Your task to perform on an android device: install app "YouTube Kids" Image 0: 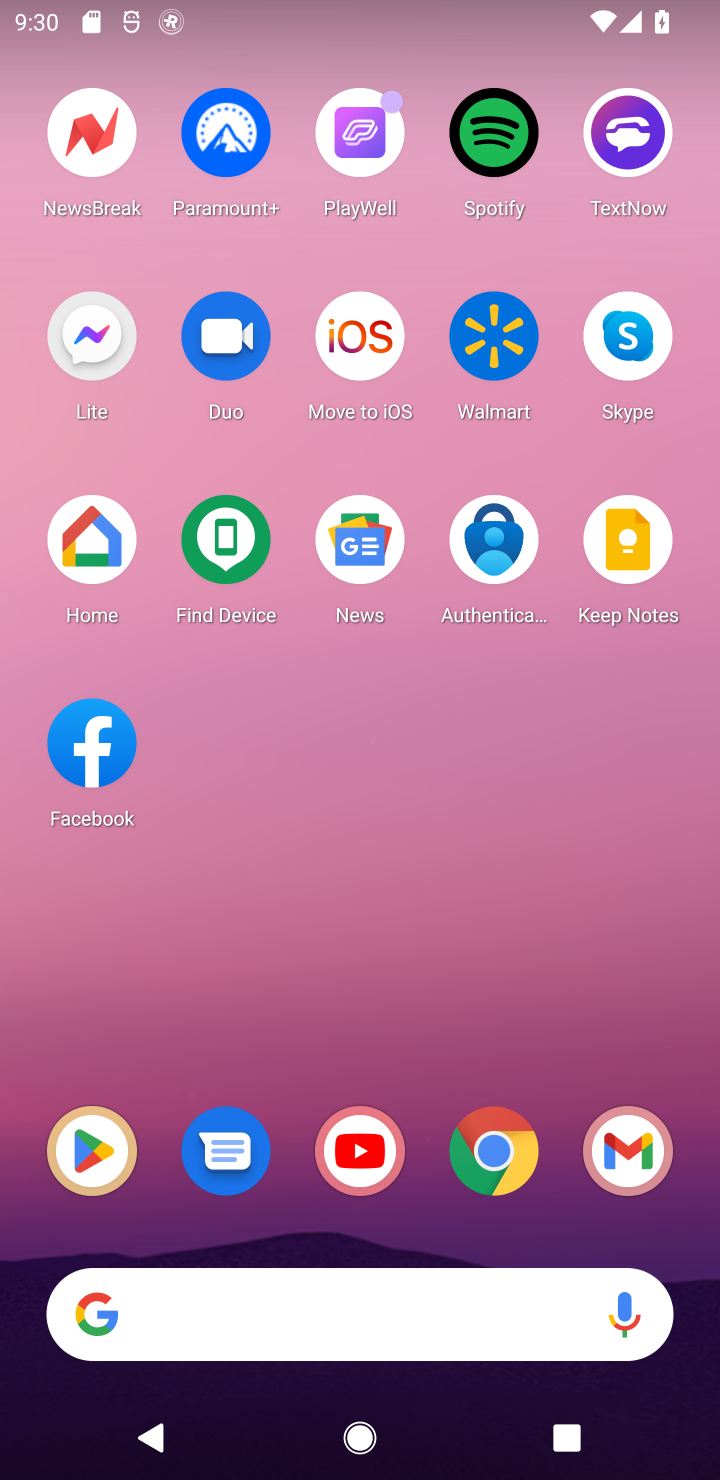
Step 0: click (99, 1162)
Your task to perform on an android device: install app "YouTube Kids" Image 1: 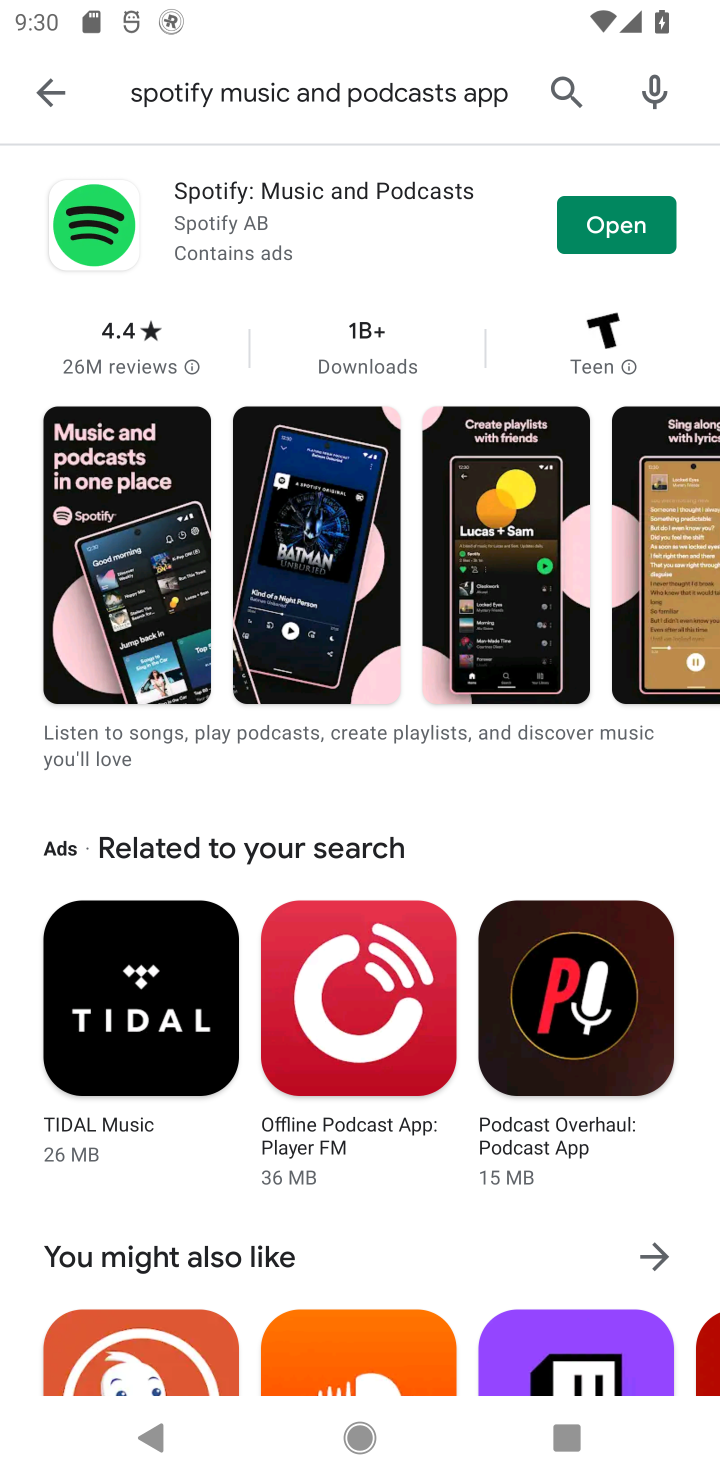
Step 1: click (559, 110)
Your task to perform on an android device: install app "YouTube Kids" Image 2: 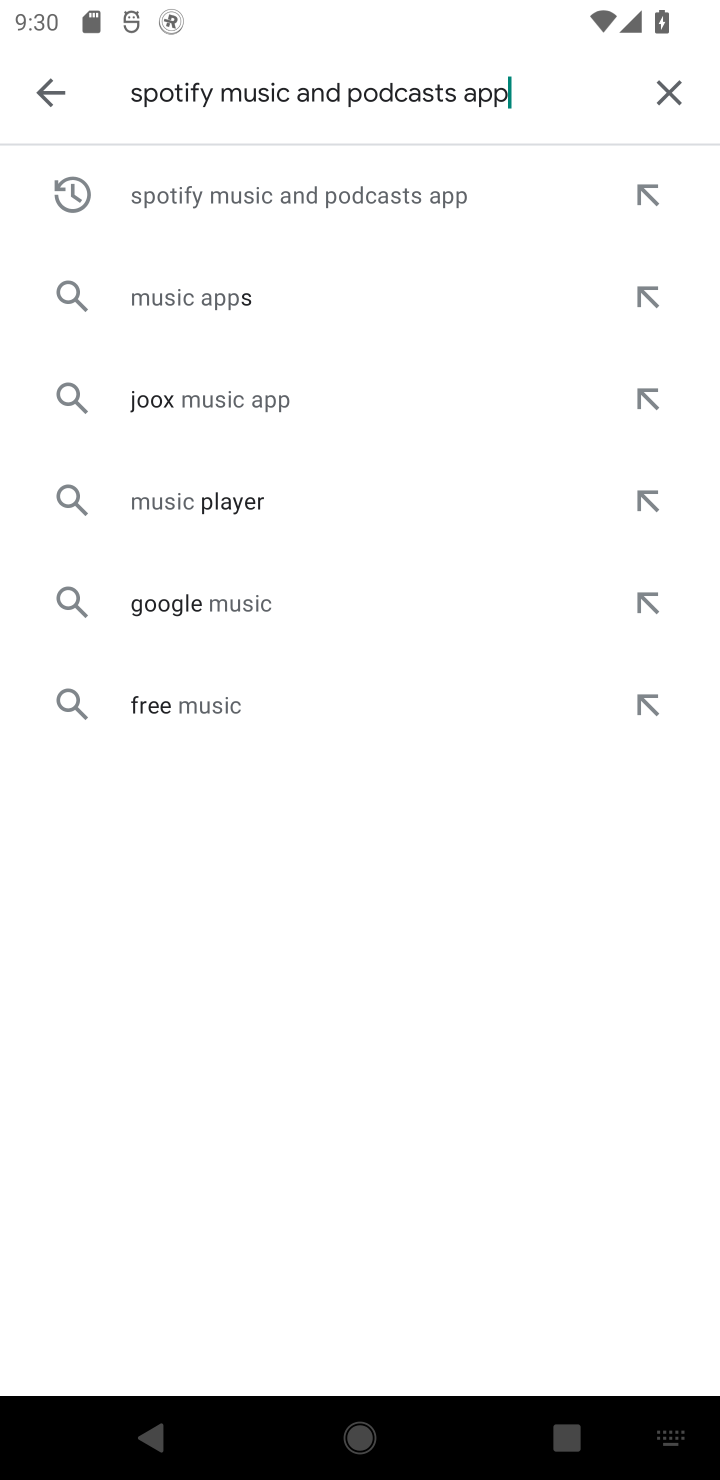
Step 2: click (650, 69)
Your task to perform on an android device: install app "YouTube Kids" Image 3: 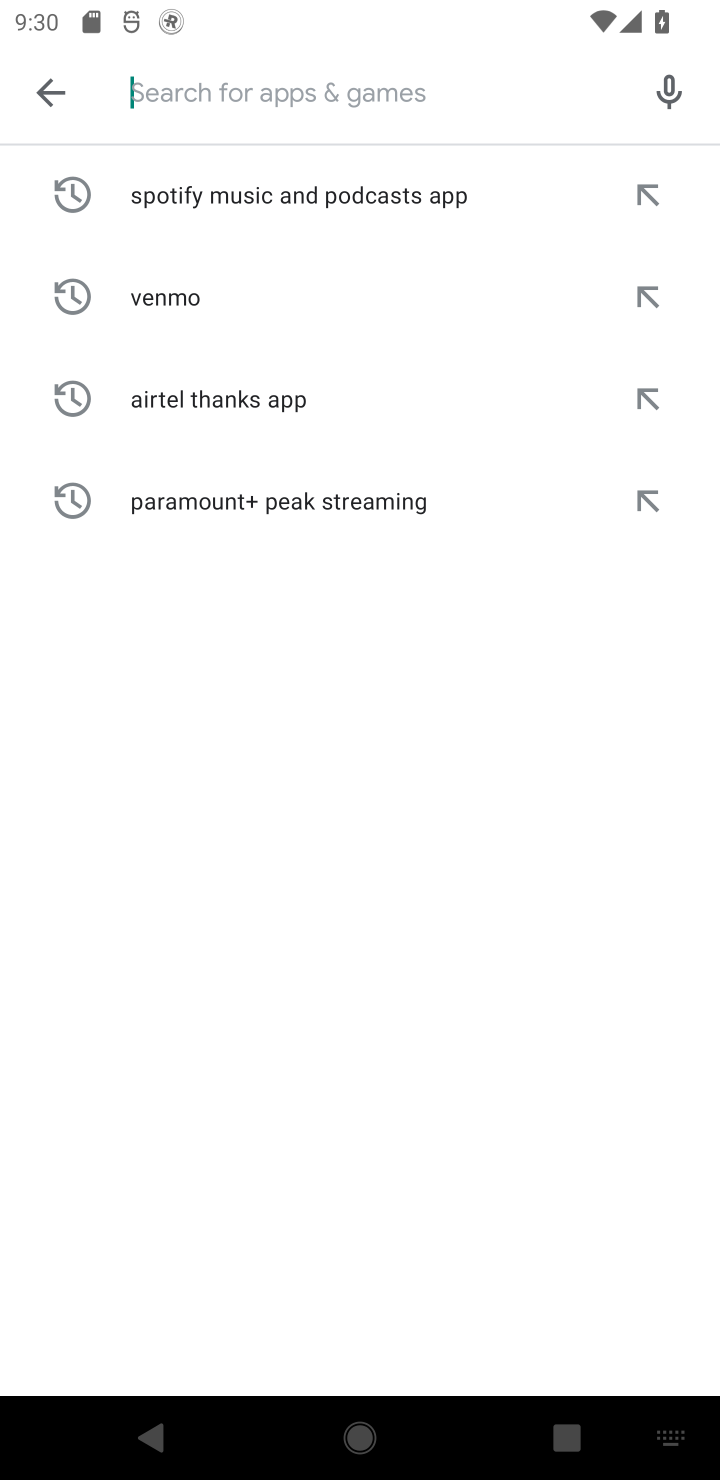
Step 3: type "YouTube Kids"
Your task to perform on an android device: install app "YouTube Kids" Image 4: 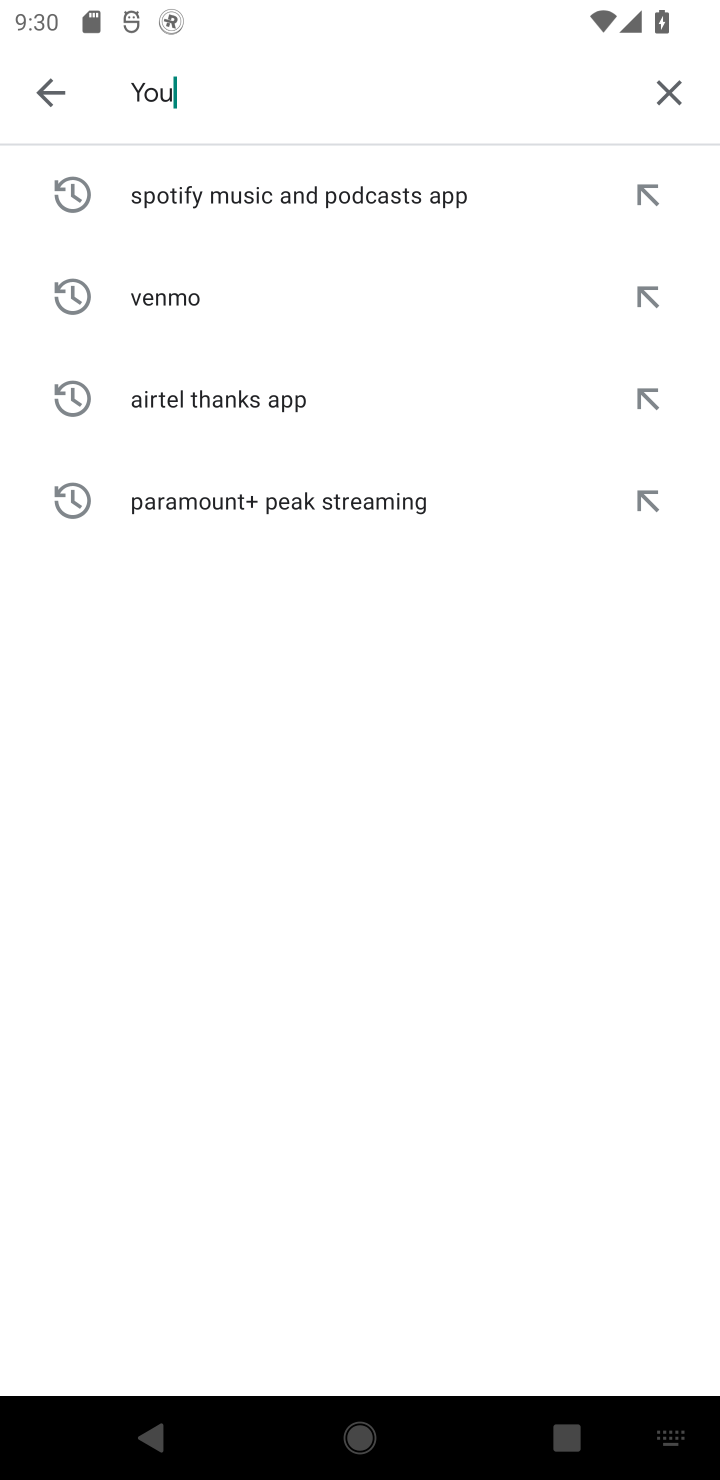
Step 4: type ""
Your task to perform on an android device: install app "YouTube Kids" Image 5: 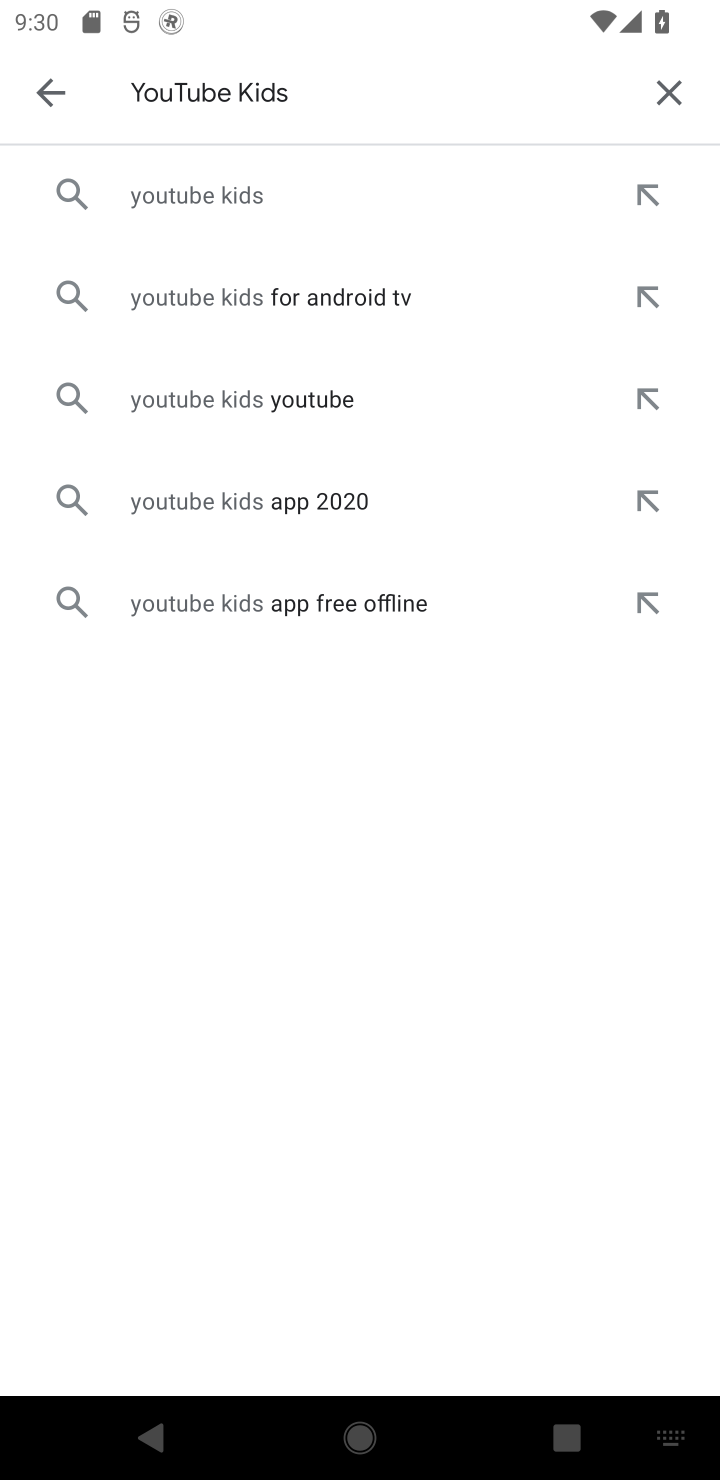
Step 5: click (235, 201)
Your task to perform on an android device: install app "YouTube Kids" Image 6: 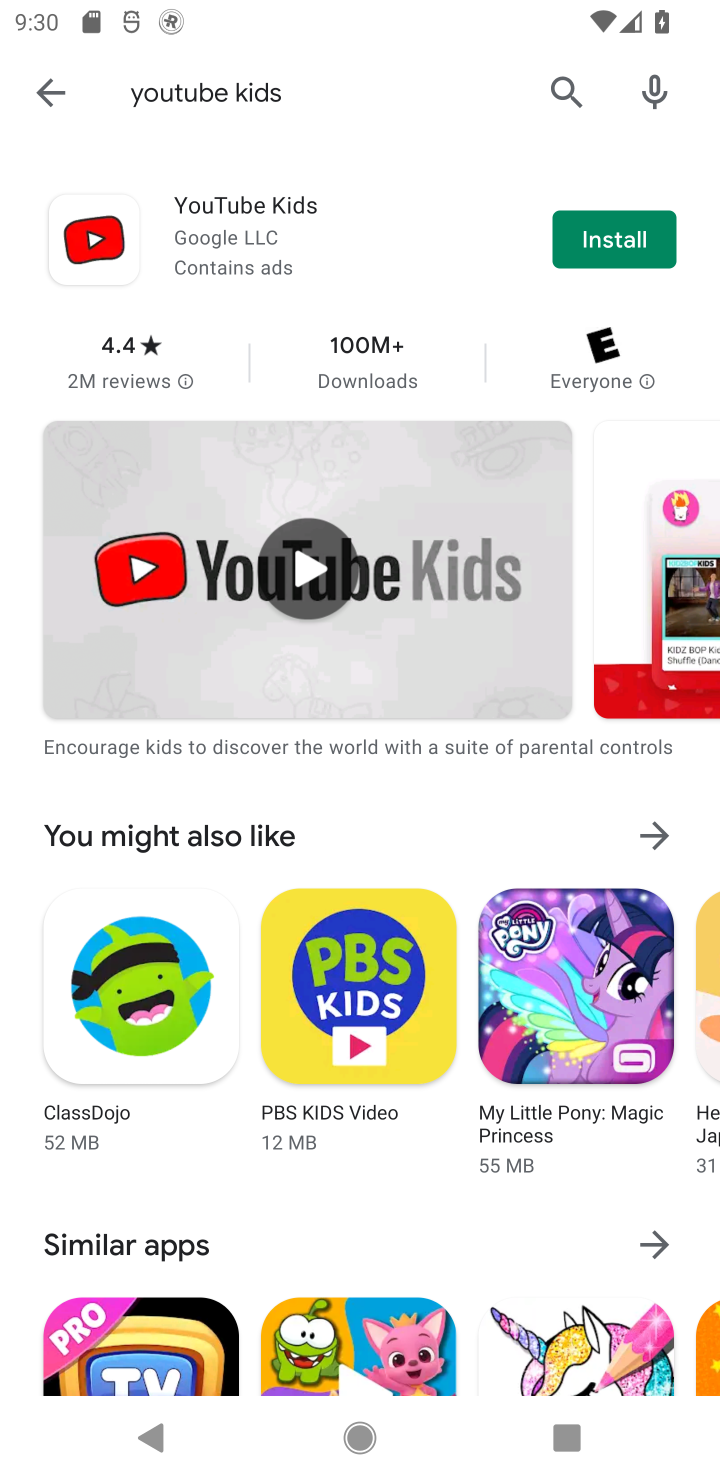
Step 6: click (653, 242)
Your task to perform on an android device: install app "YouTube Kids" Image 7: 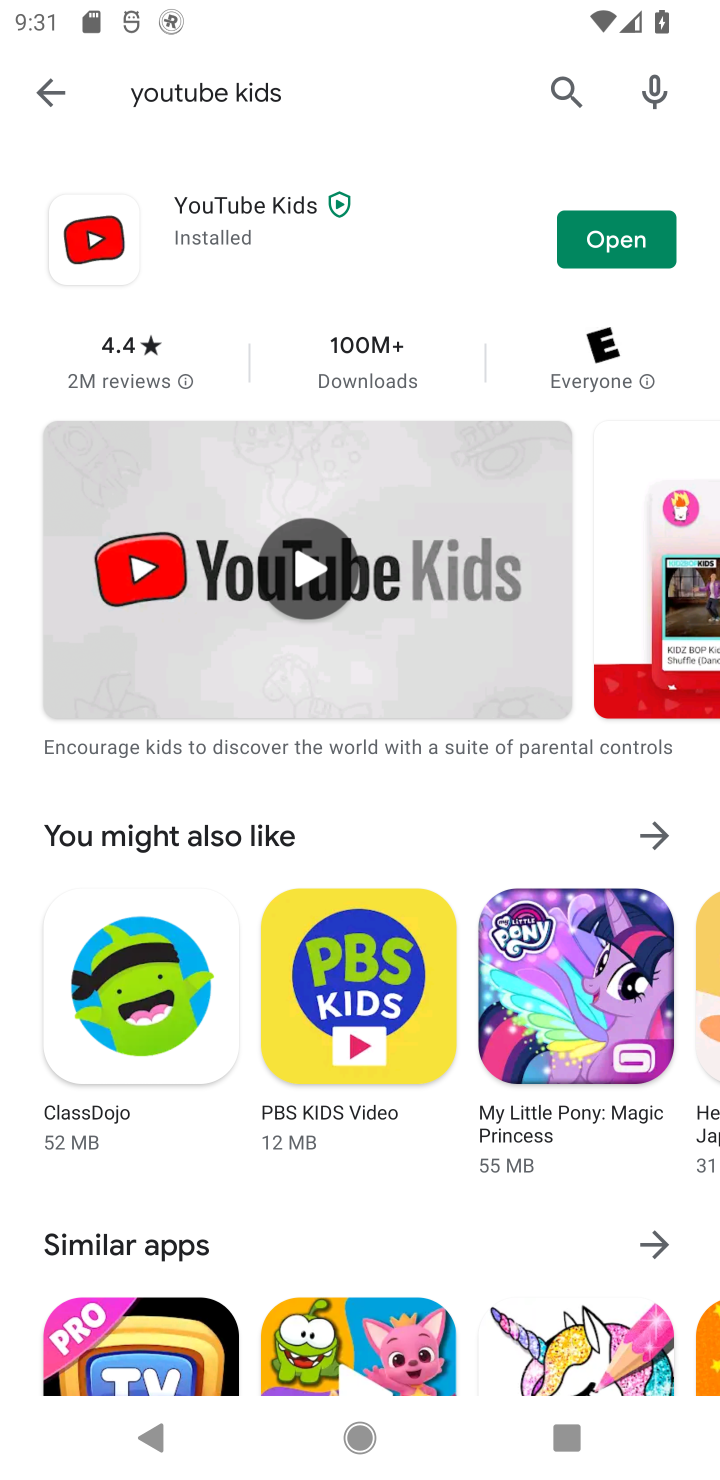
Step 7: task complete